Your task to perform on an android device: empty trash in google photos Image 0: 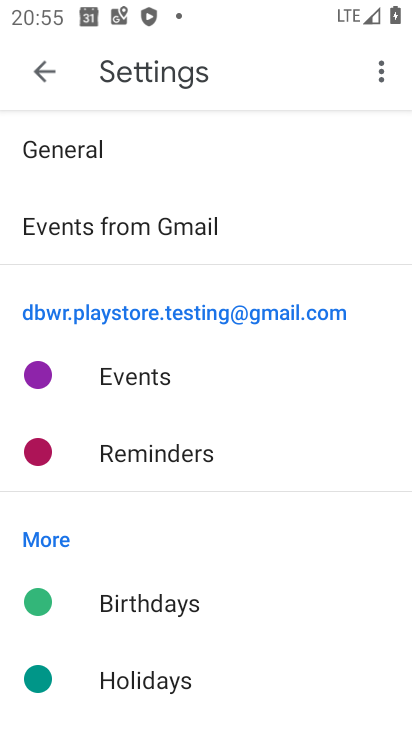
Step 0: press home button
Your task to perform on an android device: empty trash in google photos Image 1: 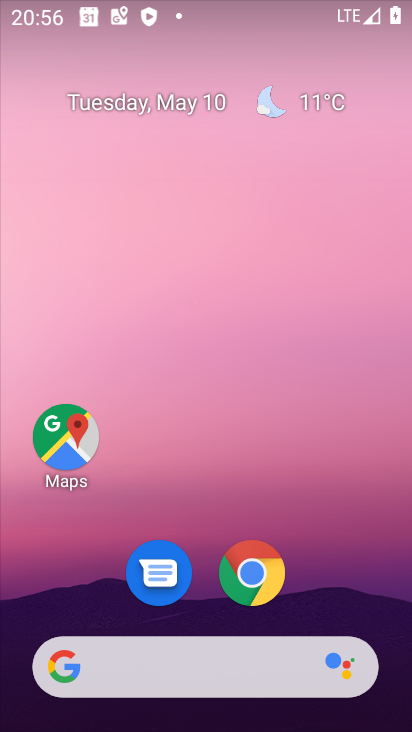
Step 1: drag from (361, 608) to (343, 8)
Your task to perform on an android device: empty trash in google photos Image 2: 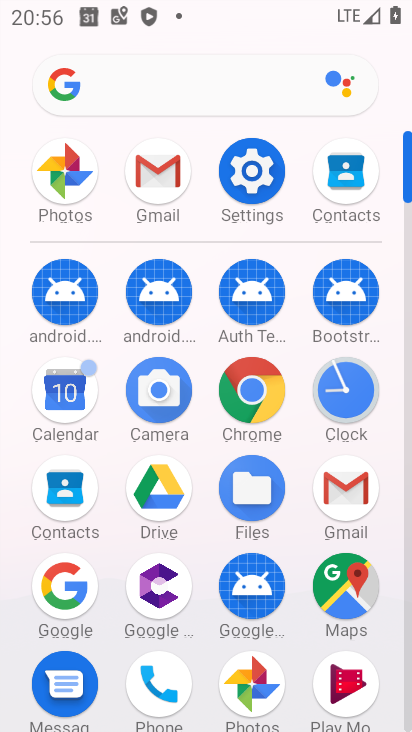
Step 2: click (61, 188)
Your task to perform on an android device: empty trash in google photos Image 3: 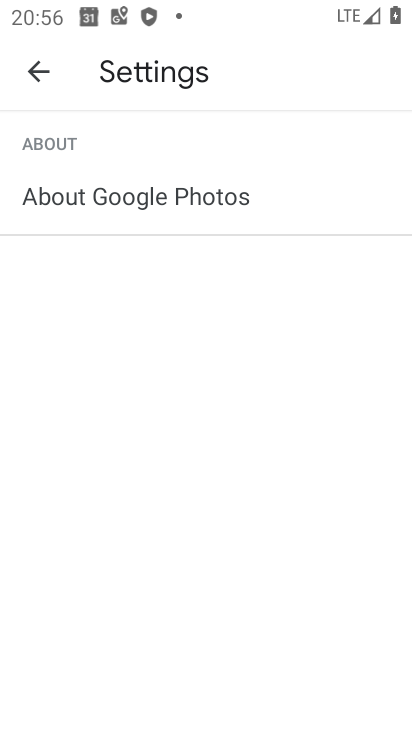
Step 3: click (49, 73)
Your task to perform on an android device: empty trash in google photos Image 4: 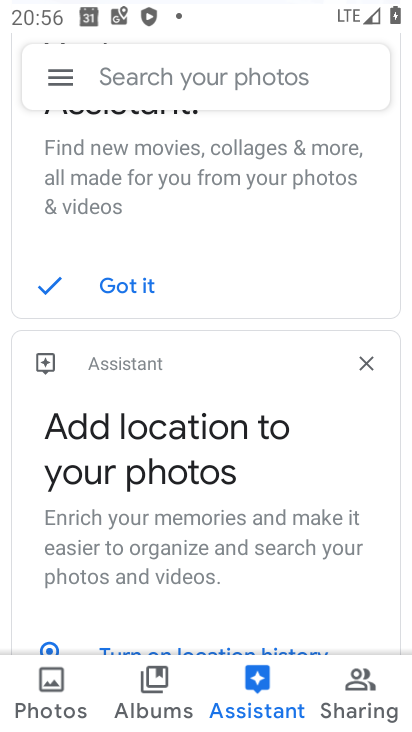
Step 4: click (59, 84)
Your task to perform on an android device: empty trash in google photos Image 5: 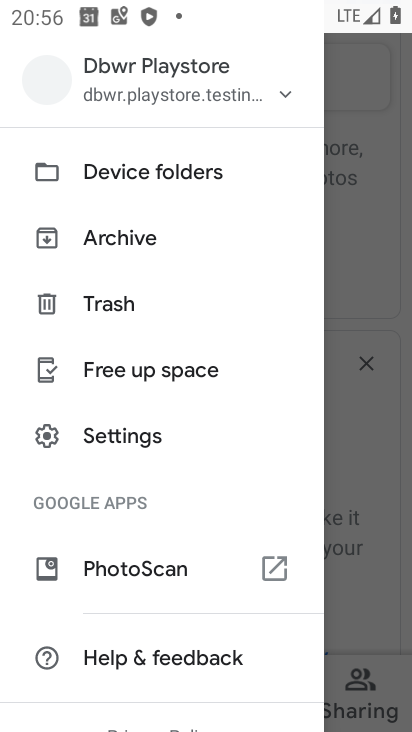
Step 5: click (83, 313)
Your task to perform on an android device: empty trash in google photos Image 6: 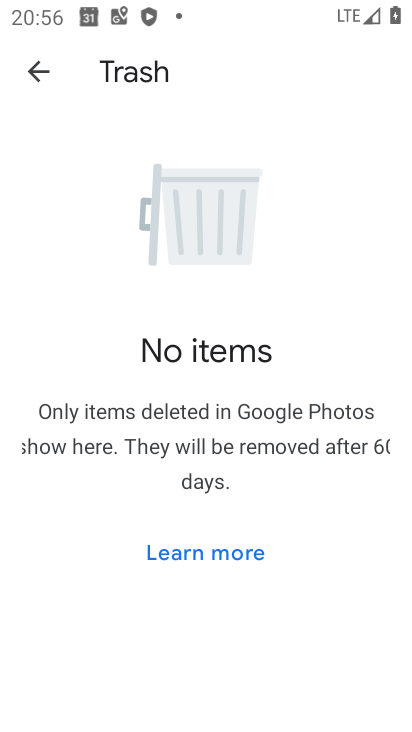
Step 6: task complete